Your task to perform on an android device: star an email in the gmail app Image 0: 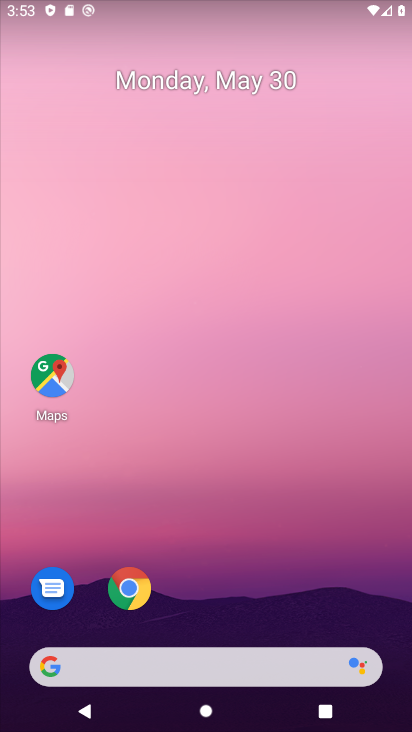
Step 0: drag from (260, 467) to (277, 344)
Your task to perform on an android device: star an email in the gmail app Image 1: 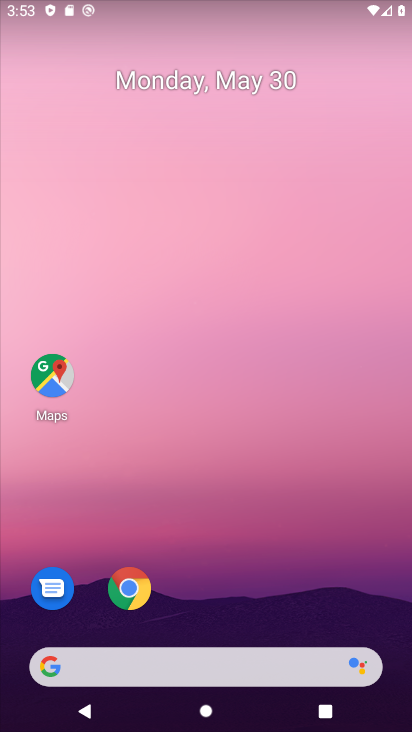
Step 1: drag from (201, 571) to (262, 233)
Your task to perform on an android device: star an email in the gmail app Image 2: 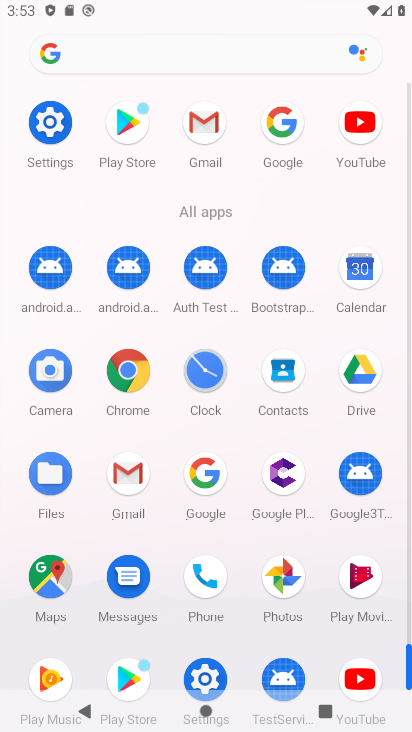
Step 2: click (202, 137)
Your task to perform on an android device: star an email in the gmail app Image 3: 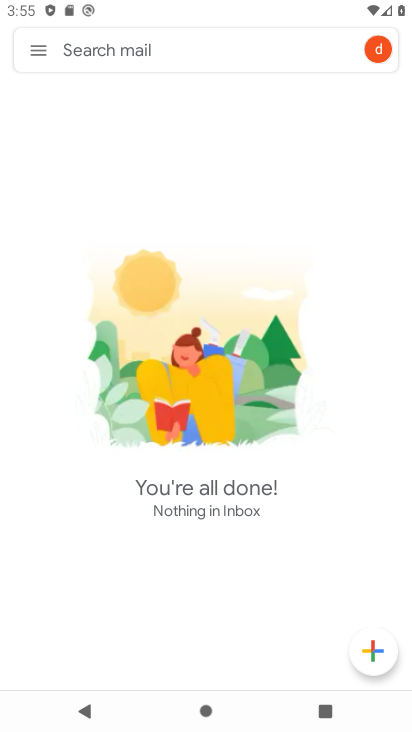
Step 3: task complete